Your task to perform on an android device: open app "Spotify" (install if not already installed) Image 0: 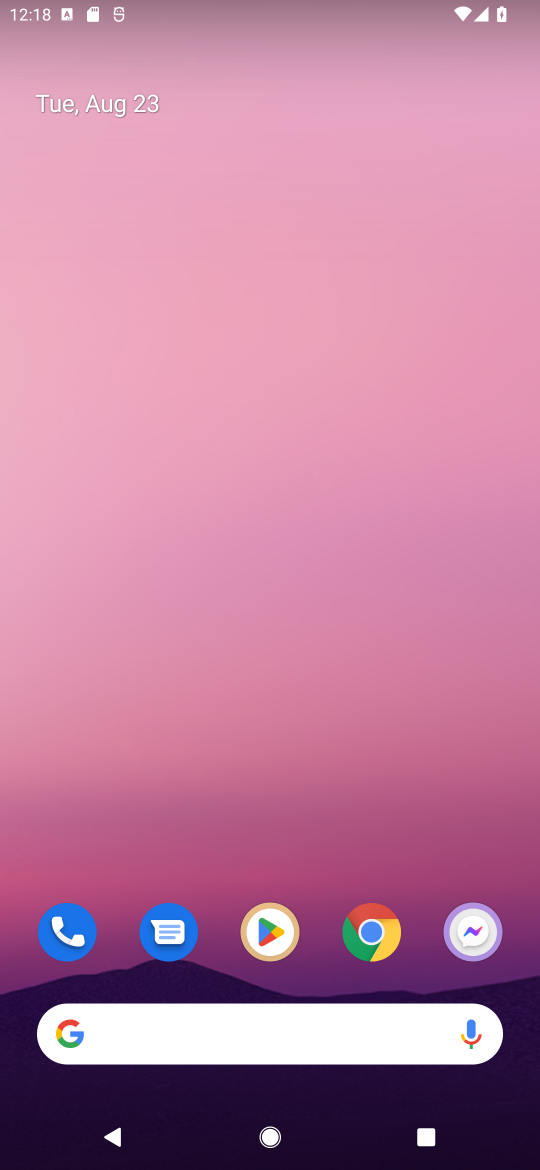
Step 0: click (284, 934)
Your task to perform on an android device: open app "Spotify" (install if not already installed) Image 1: 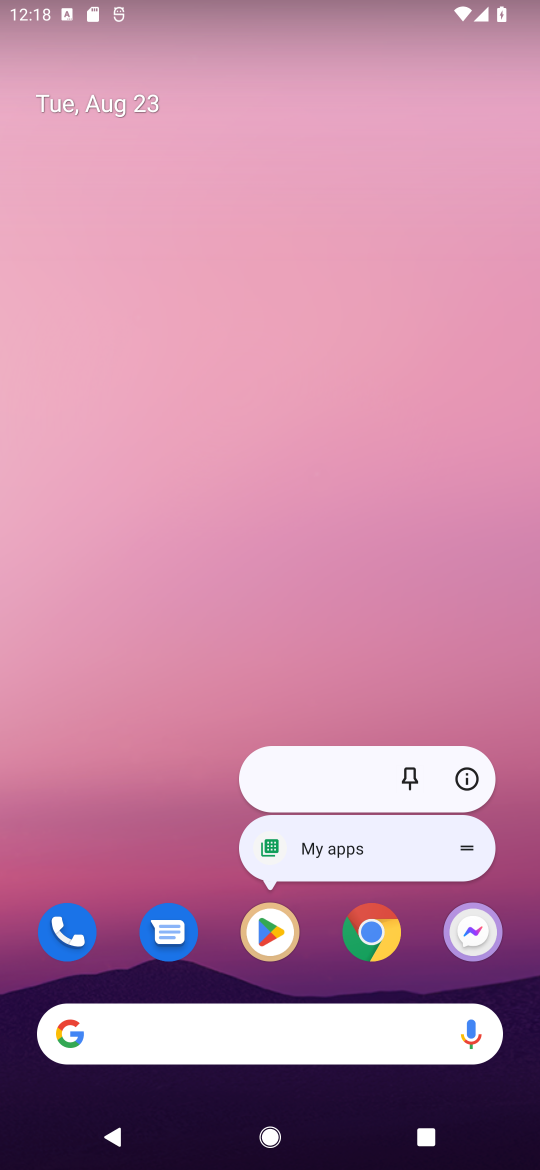
Step 1: click (274, 932)
Your task to perform on an android device: open app "Spotify" (install if not already installed) Image 2: 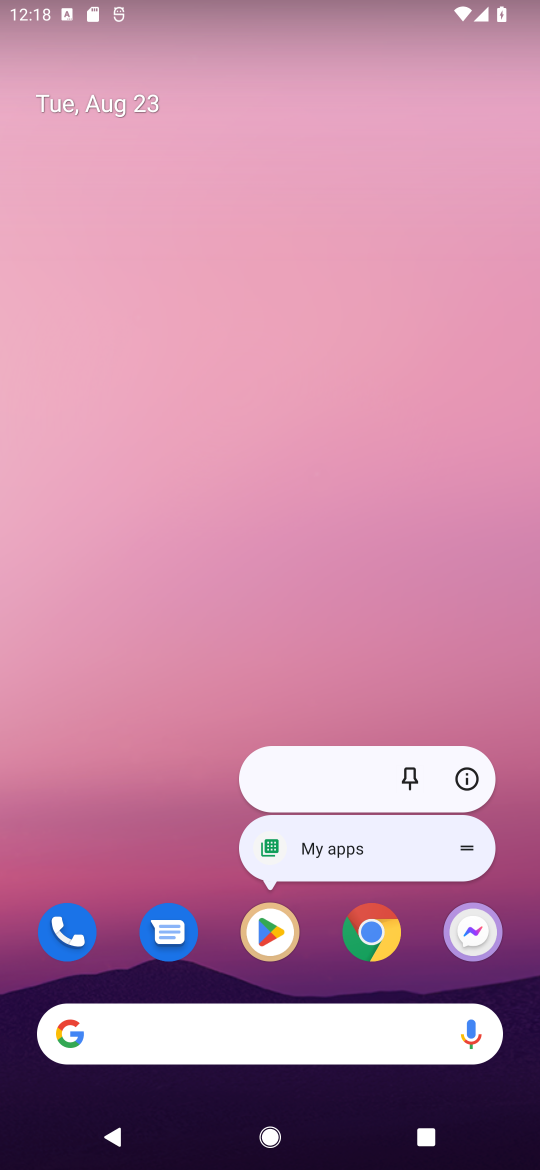
Step 2: click (260, 937)
Your task to perform on an android device: open app "Spotify" (install if not already installed) Image 3: 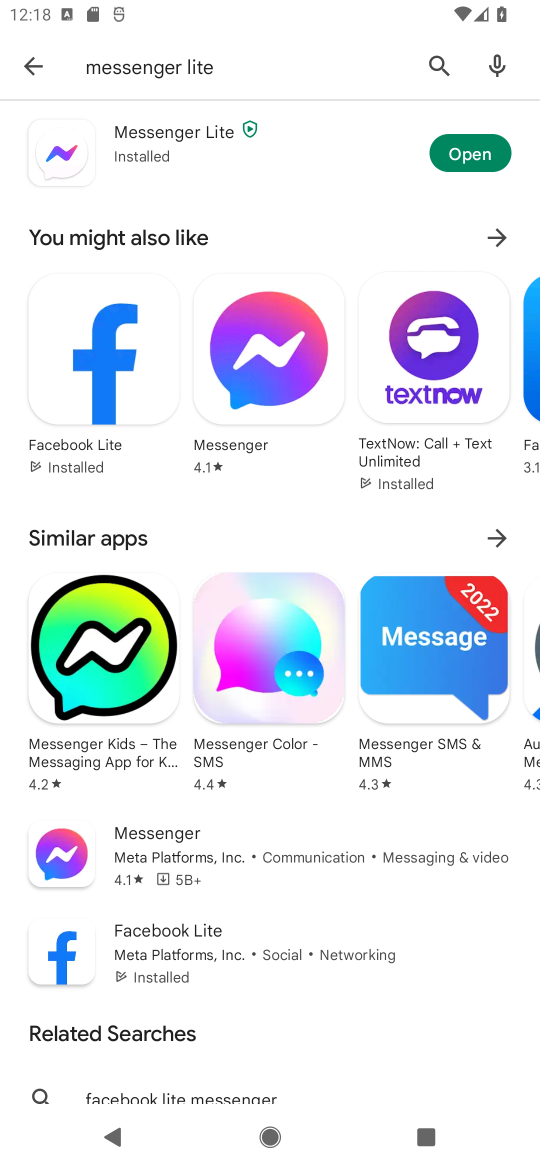
Step 3: click (427, 65)
Your task to perform on an android device: open app "Spotify" (install if not already installed) Image 4: 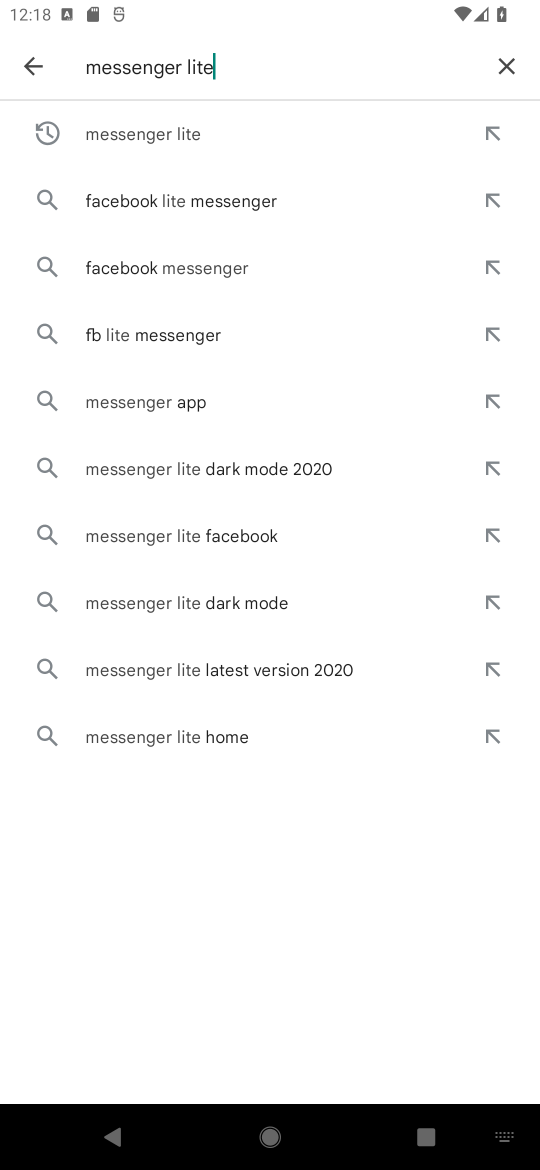
Step 4: click (502, 61)
Your task to perform on an android device: open app "Spotify" (install if not already installed) Image 5: 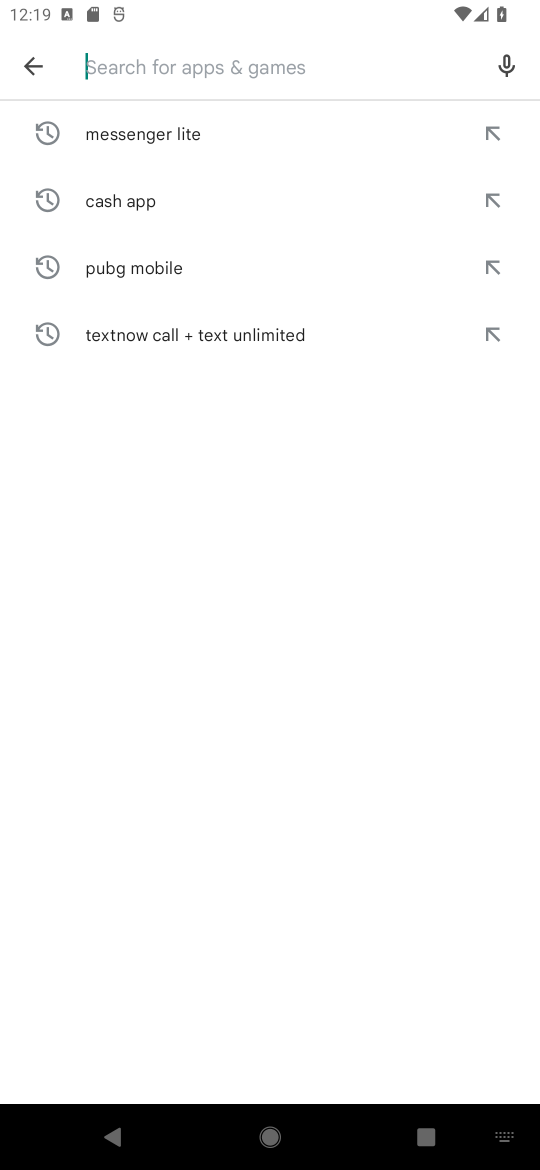
Step 5: click (141, 65)
Your task to perform on an android device: open app "Spotify" (install if not already installed) Image 6: 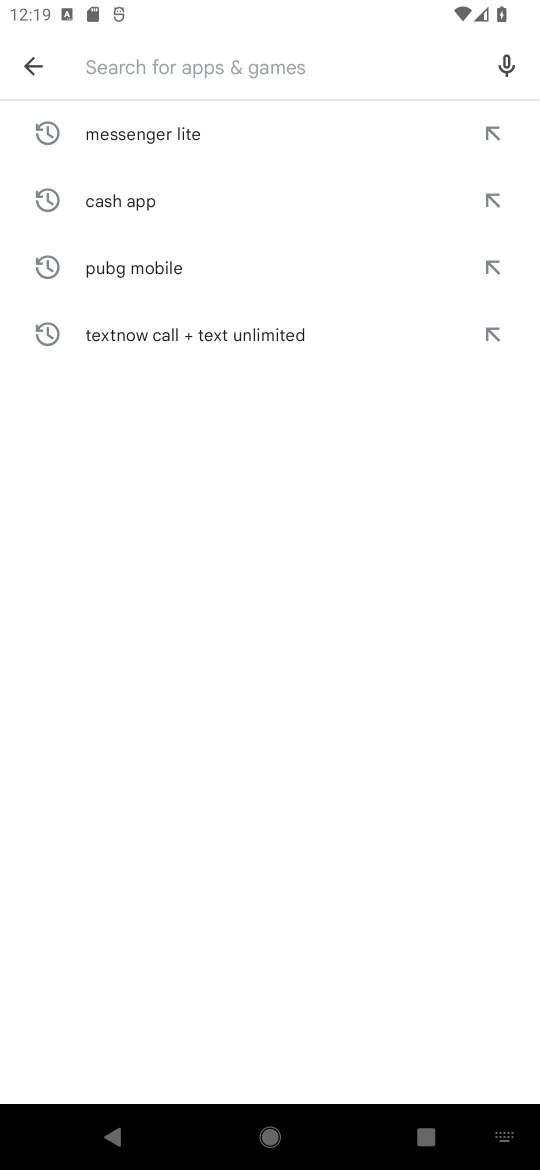
Step 6: type "Spotify"
Your task to perform on an android device: open app "Spotify" (install if not already installed) Image 7: 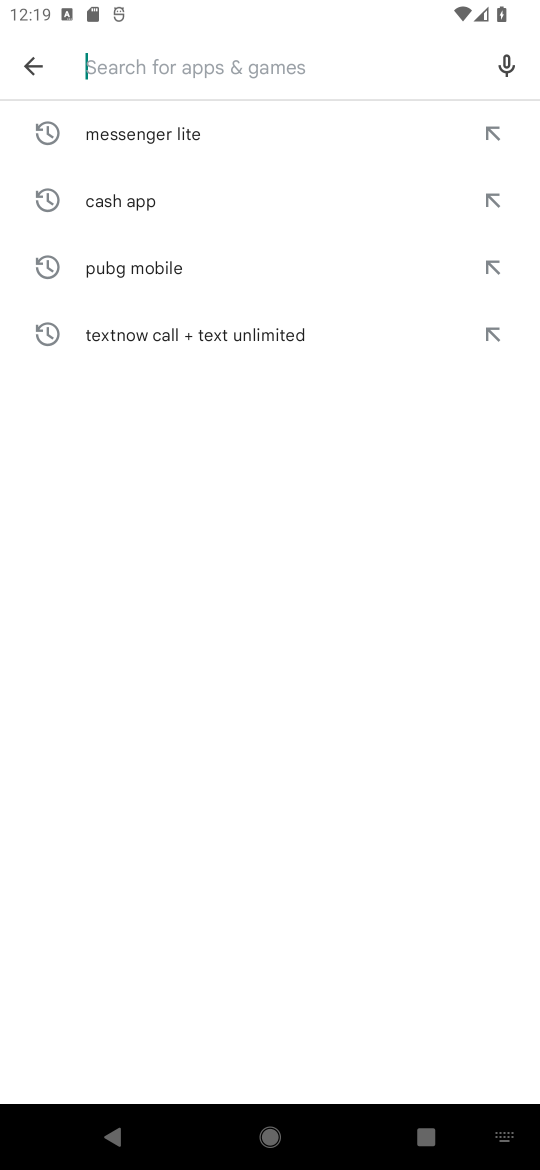
Step 7: click (140, 672)
Your task to perform on an android device: open app "Spotify" (install if not already installed) Image 8: 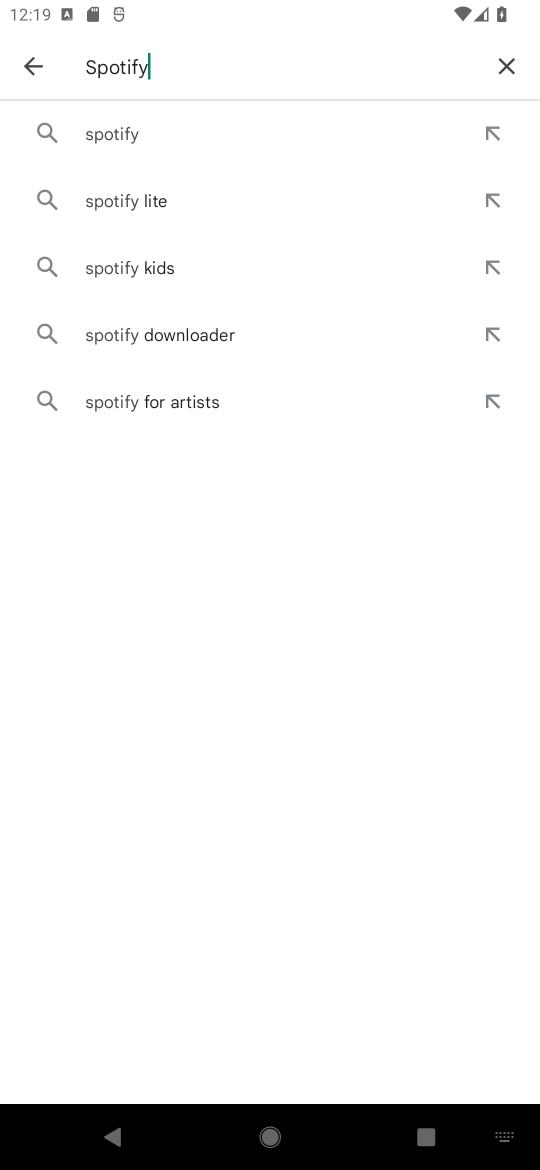
Step 8: click (110, 138)
Your task to perform on an android device: open app "Spotify" (install if not already installed) Image 9: 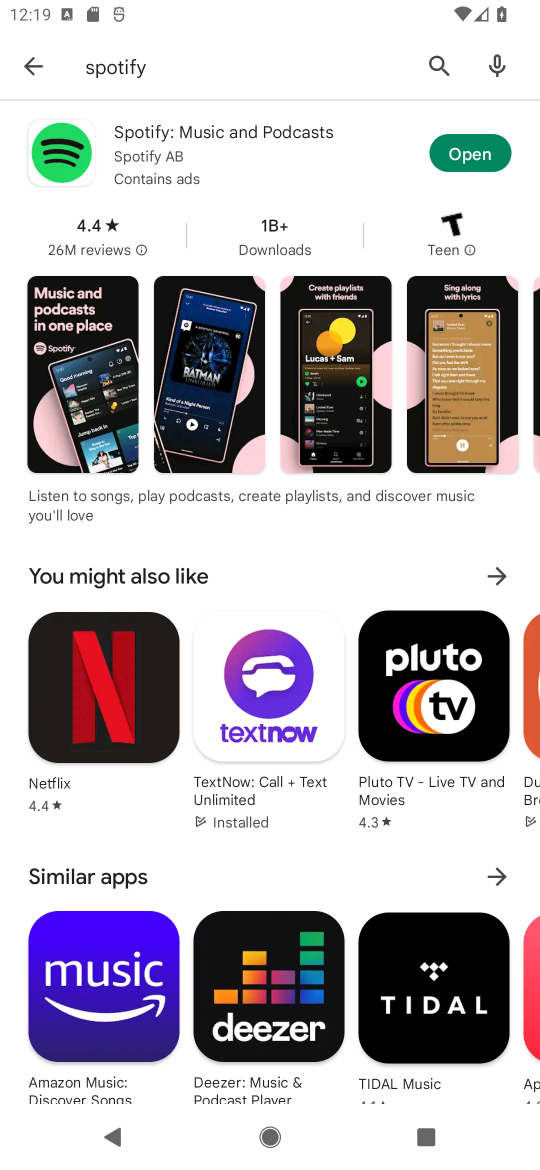
Step 9: click (459, 161)
Your task to perform on an android device: open app "Spotify" (install if not already installed) Image 10: 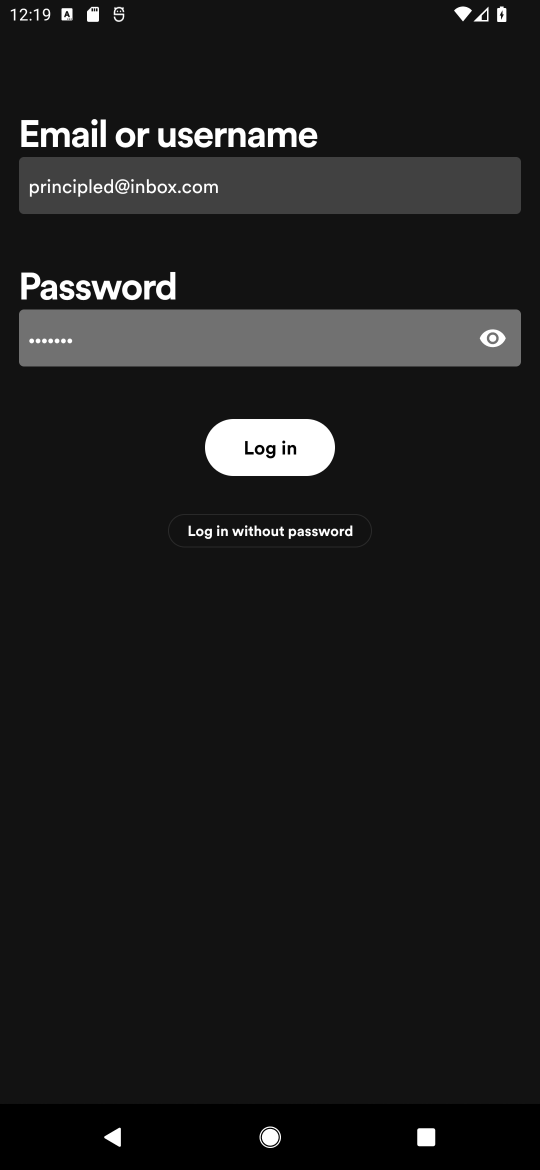
Step 10: task complete